Your task to perform on an android device: Open Amazon Image 0: 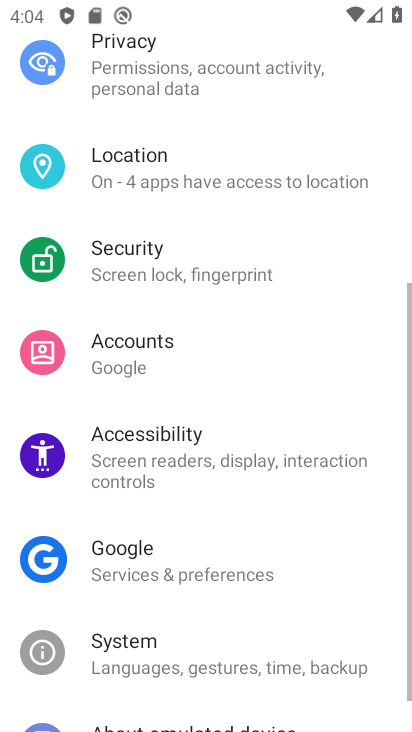
Step 0: drag from (326, 618) to (310, 492)
Your task to perform on an android device: Open Amazon Image 1: 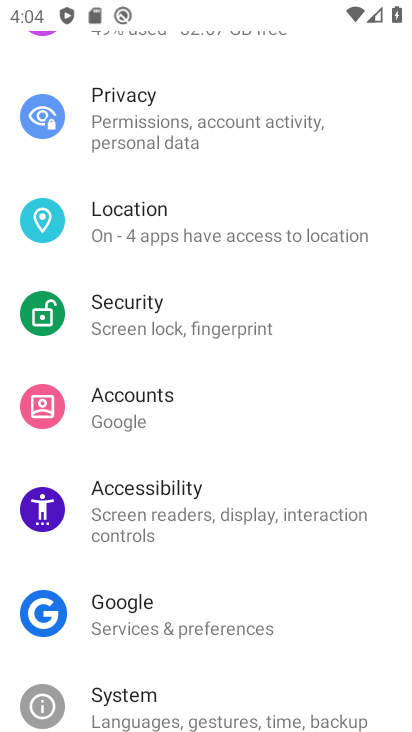
Step 1: press home button
Your task to perform on an android device: Open Amazon Image 2: 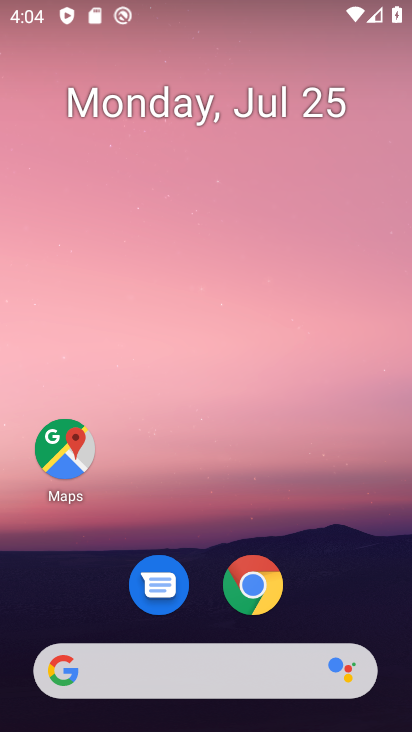
Step 2: click (251, 586)
Your task to perform on an android device: Open Amazon Image 3: 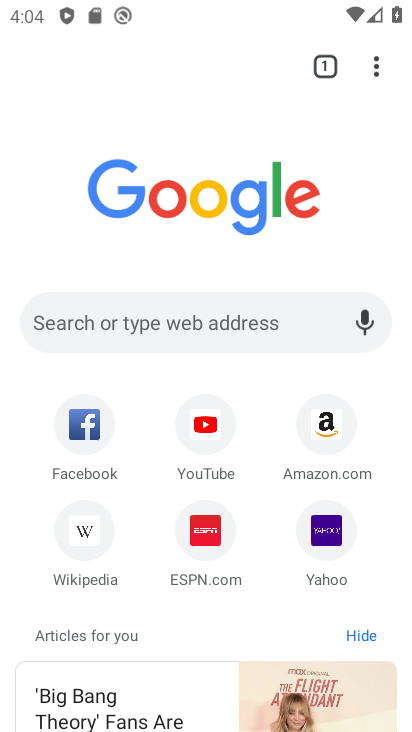
Step 3: click (329, 425)
Your task to perform on an android device: Open Amazon Image 4: 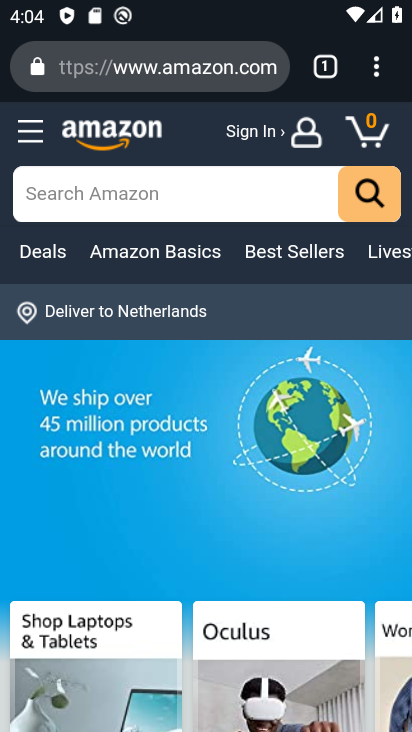
Step 4: task complete